Your task to perform on an android device: read, delete, or share a saved page in the chrome app Image 0: 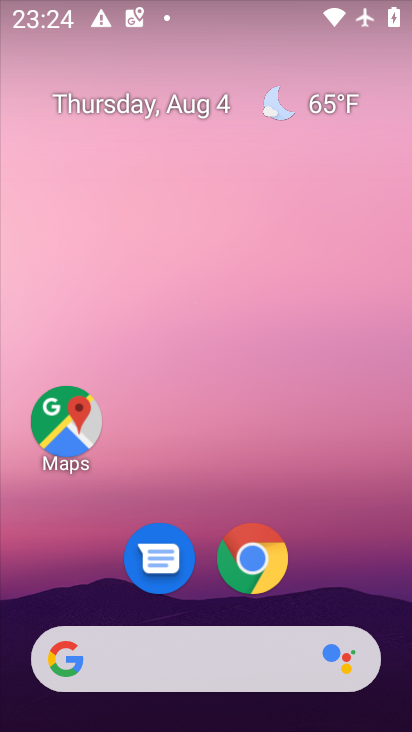
Step 0: drag from (373, 530) to (349, 80)
Your task to perform on an android device: read, delete, or share a saved page in the chrome app Image 1: 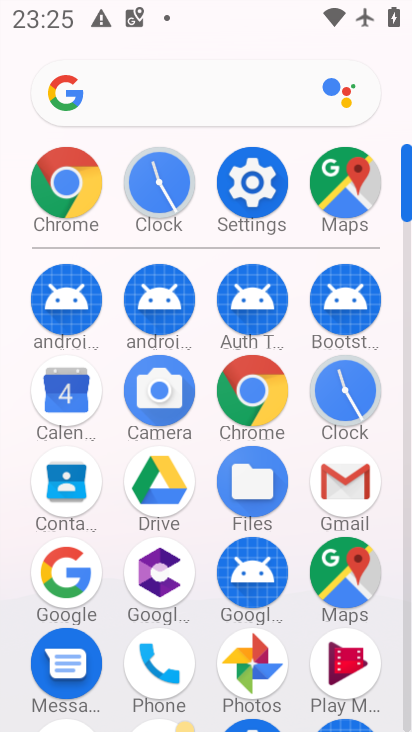
Step 1: click (244, 394)
Your task to perform on an android device: read, delete, or share a saved page in the chrome app Image 2: 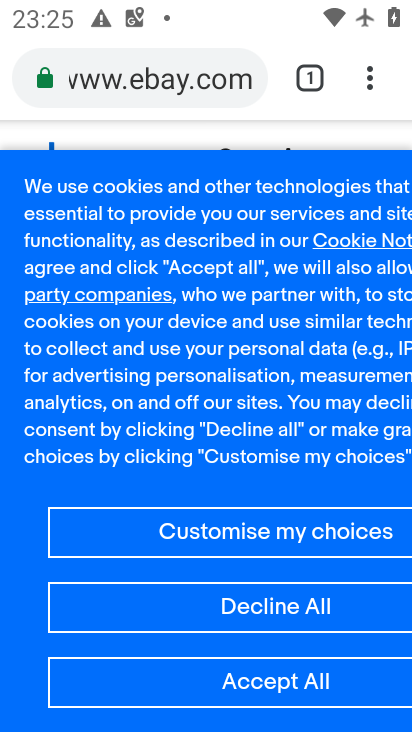
Step 2: task complete